Your task to perform on an android device: Set the phone to "Do not disturb". Image 0: 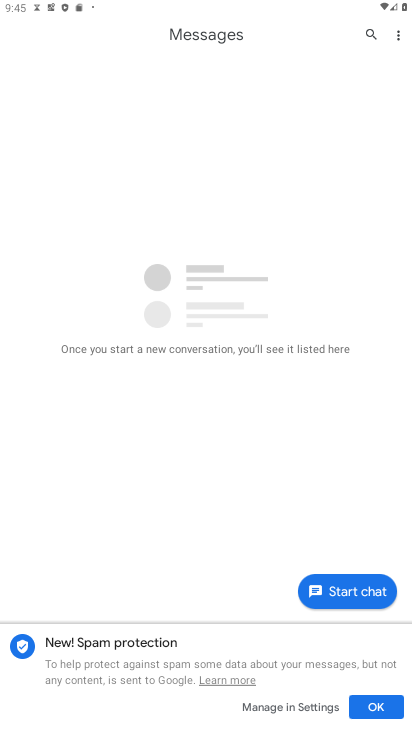
Step 0: press home button
Your task to perform on an android device: Set the phone to "Do not disturb". Image 1: 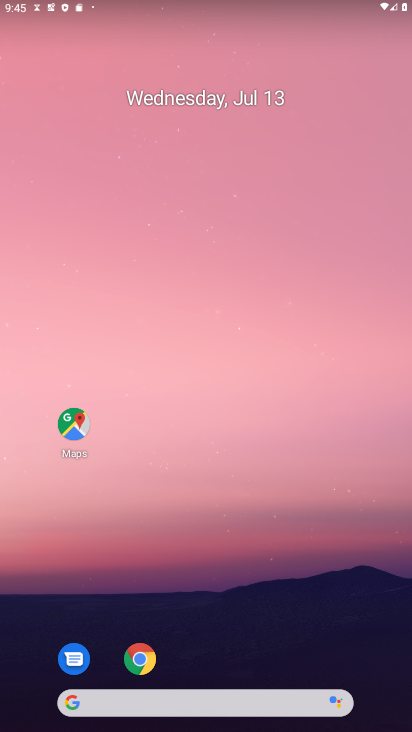
Step 1: drag from (225, 710) to (200, 379)
Your task to perform on an android device: Set the phone to "Do not disturb". Image 2: 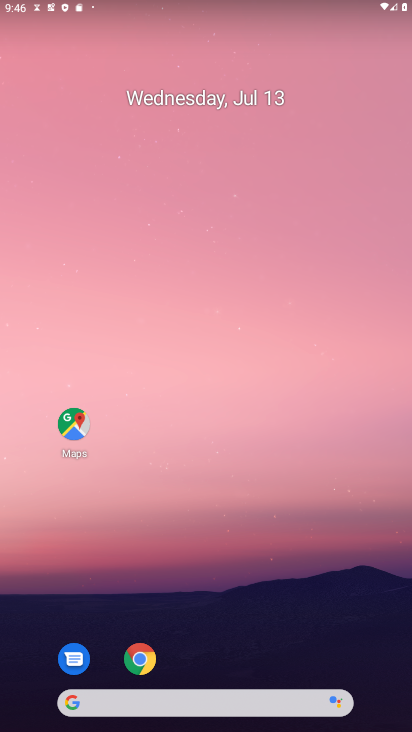
Step 2: drag from (192, 691) to (201, 286)
Your task to perform on an android device: Set the phone to "Do not disturb". Image 3: 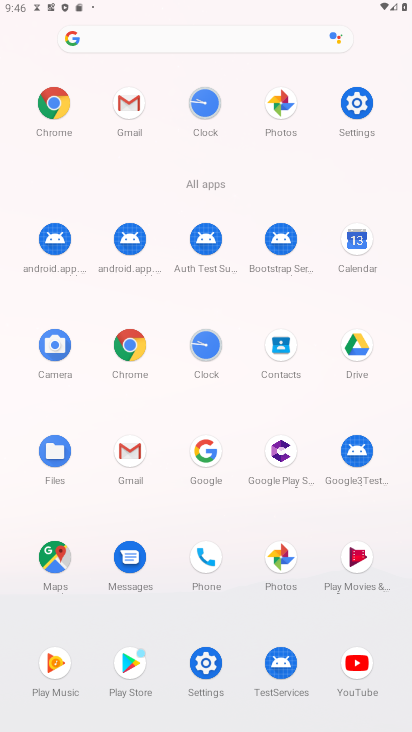
Step 3: click (198, 667)
Your task to perform on an android device: Set the phone to "Do not disturb". Image 4: 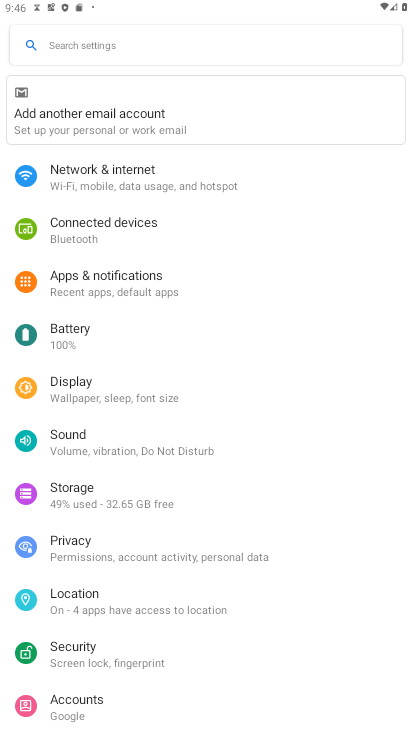
Step 4: click (84, 442)
Your task to perform on an android device: Set the phone to "Do not disturb". Image 5: 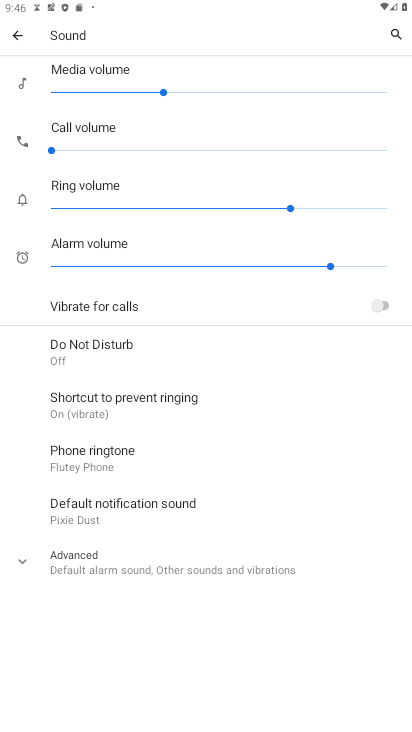
Step 5: click (107, 357)
Your task to perform on an android device: Set the phone to "Do not disturb". Image 6: 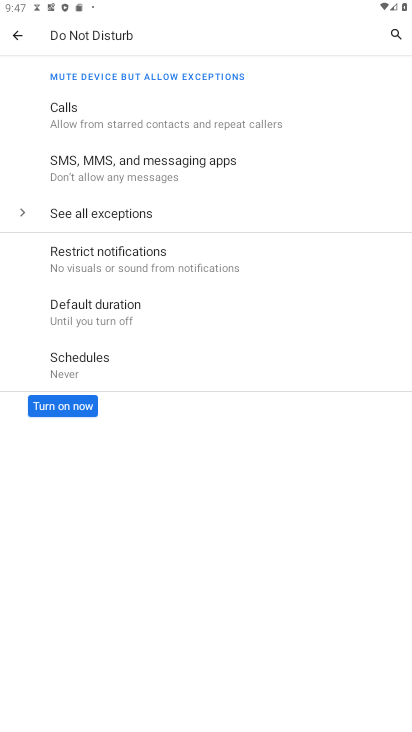
Step 6: click (76, 413)
Your task to perform on an android device: Set the phone to "Do not disturb". Image 7: 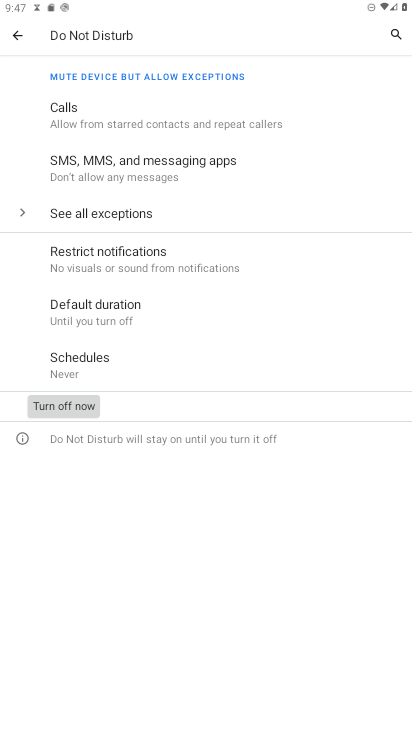
Step 7: task complete